Your task to perform on an android device: see tabs open on other devices in the chrome app Image 0: 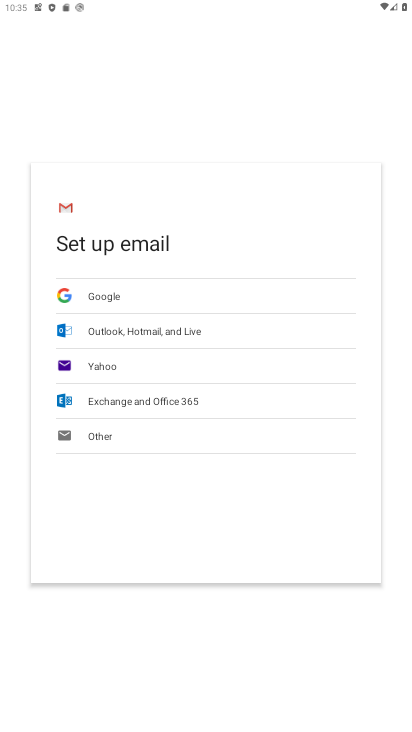
Step 0: press home button
Your task to perform on an android device: see tabs open on other devices in the chrome app Image 1: 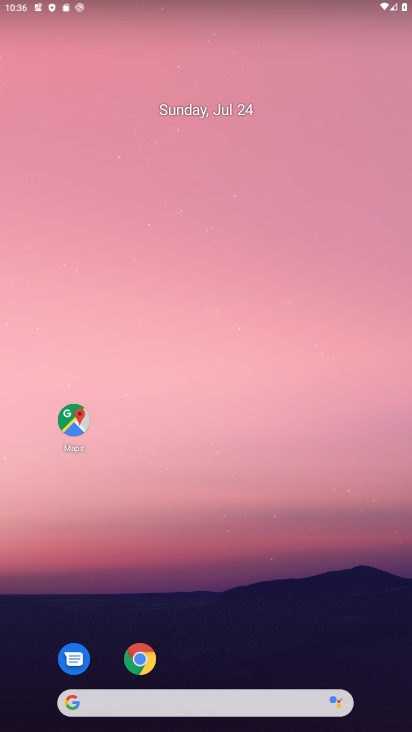
Step 1: click (143, 654)
Your task to perform on an android device: see tabs open on other devices in the chrome app Image 2: 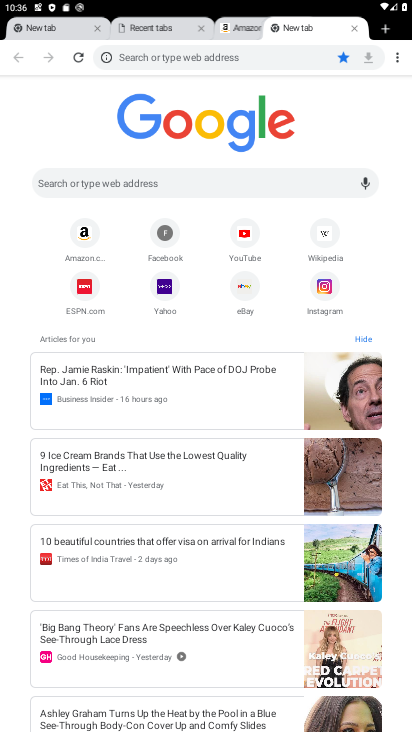
Step 2: click (399, 58)
Your task to perform on an android device: see tabs open on other devices in the chrome app Image 3: 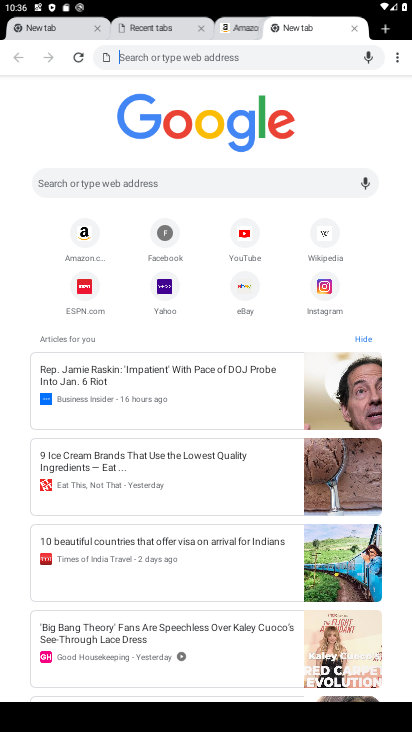
Step 3: click (395, 60)
Your task to perform on an android device: see tabs open on other devices in the chrome app Image 4: 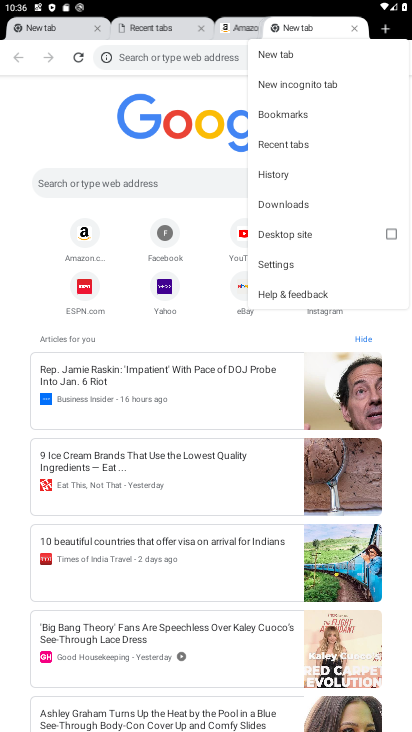
Step 4: click (268, 144)
Your task to perform on an android device: see tabs open on other devices in the chrome app Image 5: 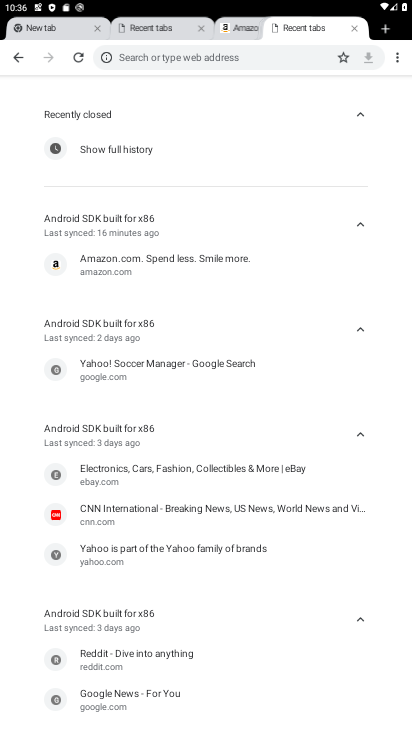
Step 5: task complete